Your task to perform on an android device: What's on my calendar today? Image 0: 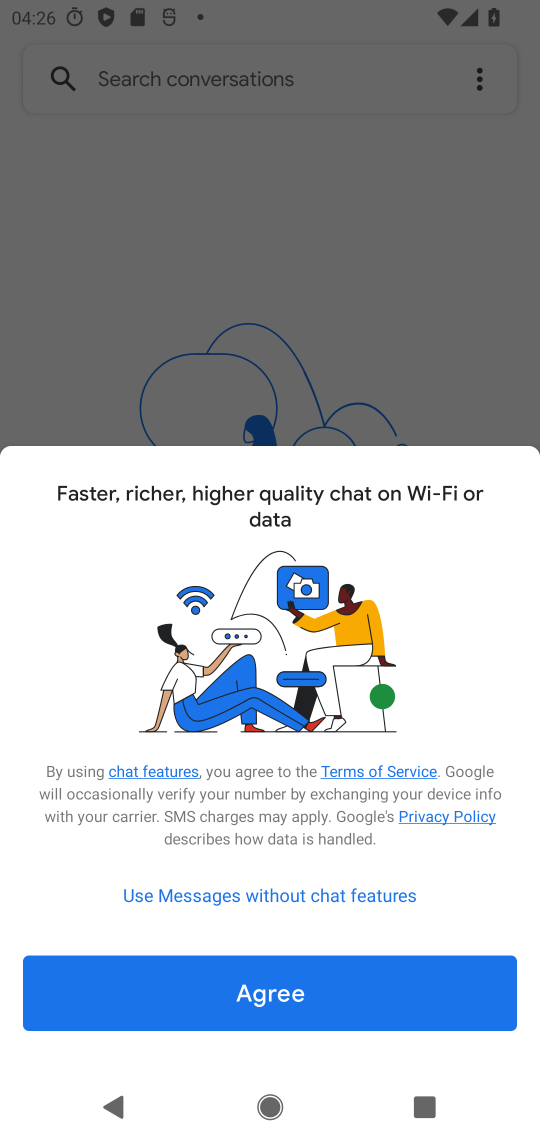
Step 0: press home button
Your task to perform on an android device: What's on my calendar today? Image 1: 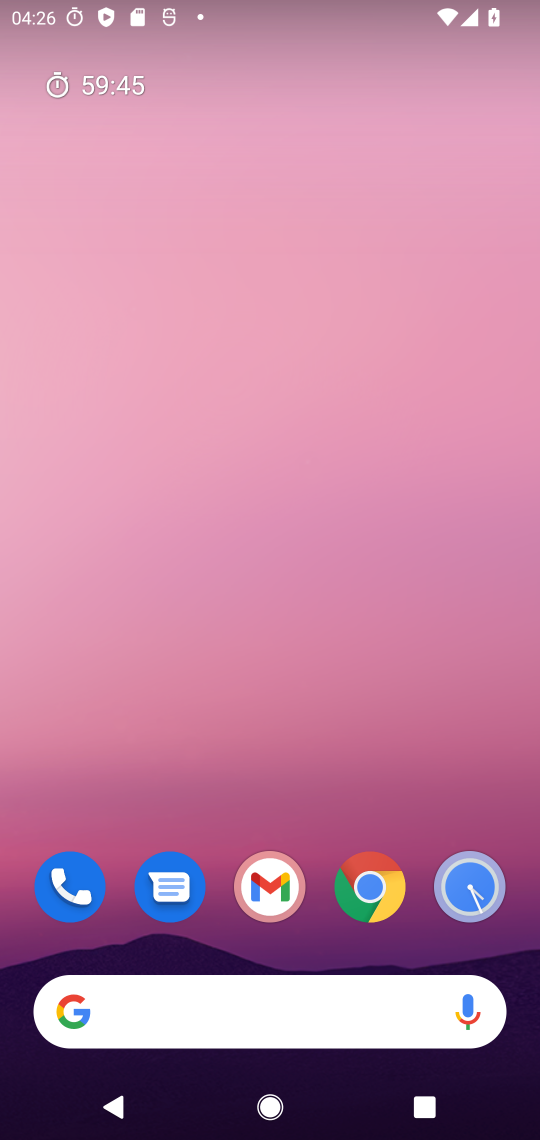
Step 1: drag from (416, 787) to (434, 317)
Your task to perform on an android device: What's on my calendar today? Image 2: 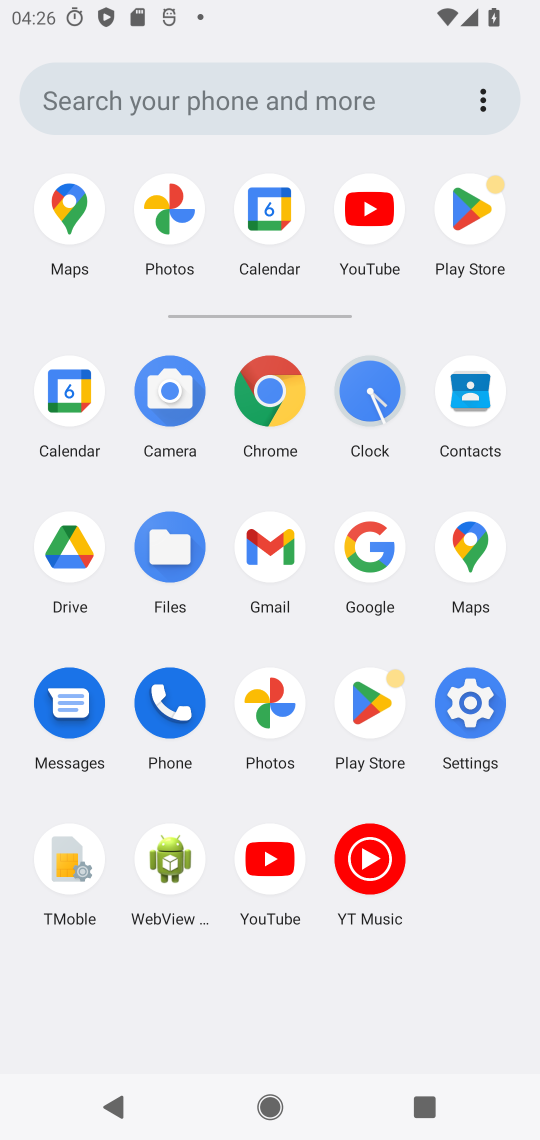
Step 2: click (68, 390)
Your task to perform on an android device: What's on my calendar today? Image 3: 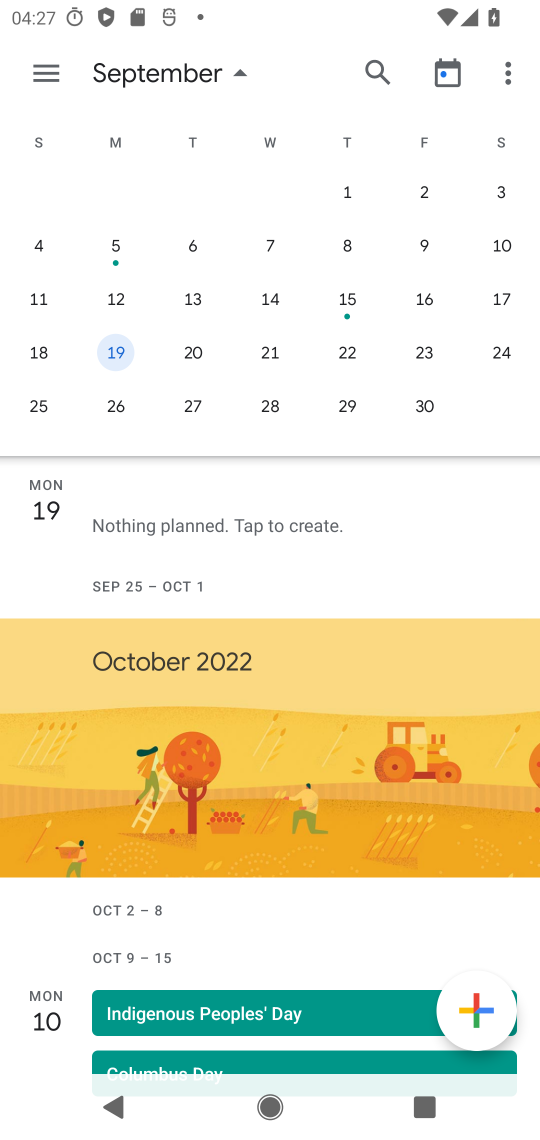
Step 3: task complete